Your task to perform on an android device: What is the recent news? Image 0: 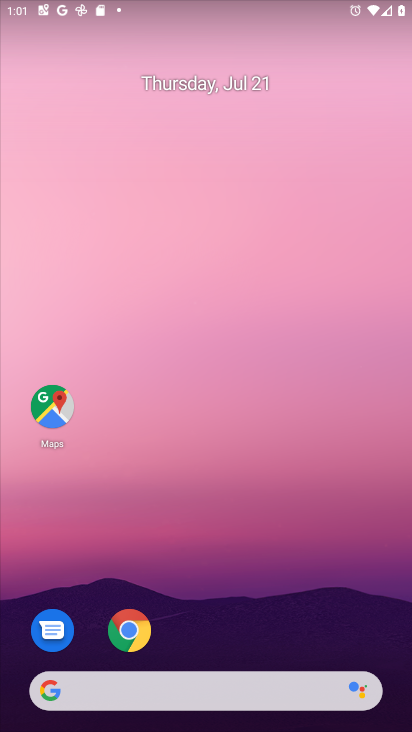
Step 0: drag from (192, 611) to (249, 220)
Your task to perform on an android device: What is the recent news? Image 1: 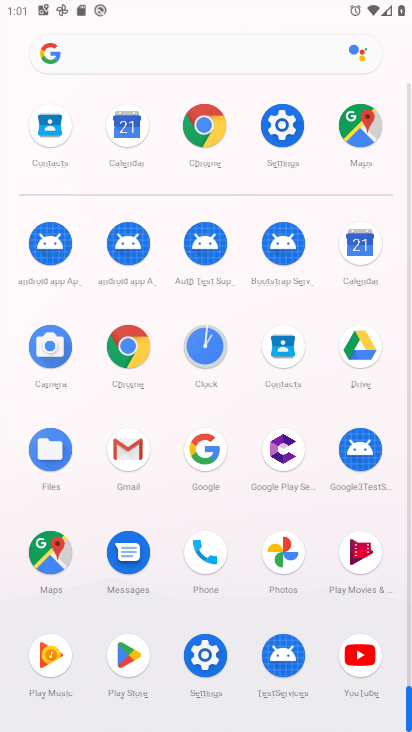
Step 1: click (123, 64)
Your task to perform on an android device: What is the recent news? Image 2: 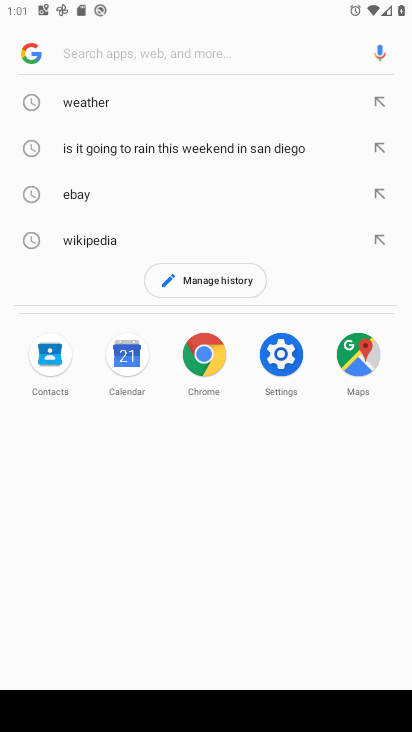
Step 2: type "recent news?"
Your task to perform on an android device: What is the recent news? Image 3: 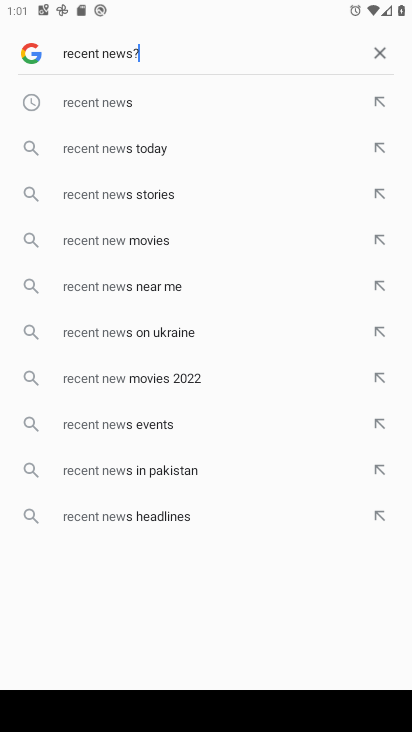
Step 3: type ""
Your task to perform on an android device: What is the recent news? Image 4: 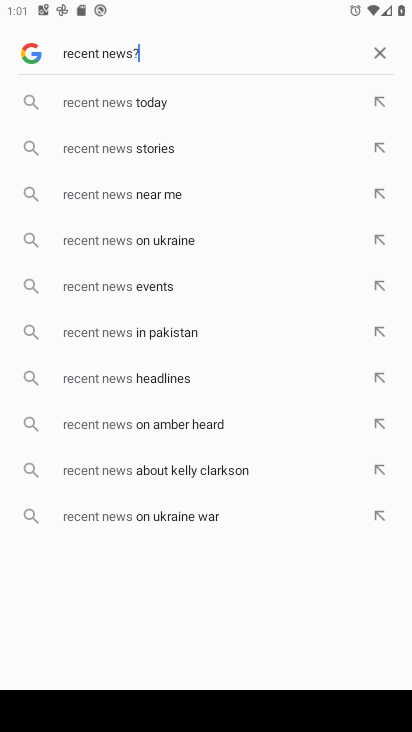
Step 4: click (144, 108)
Your task to perform on an android device: What is the recent news? Image 5: 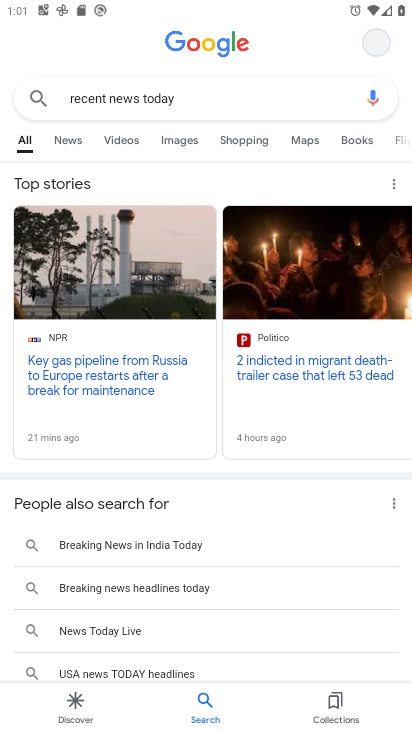
Step 5: drag from (252, 385) to (311, 180)
Your task to perform on an android device: What is the recent news? Image 6: 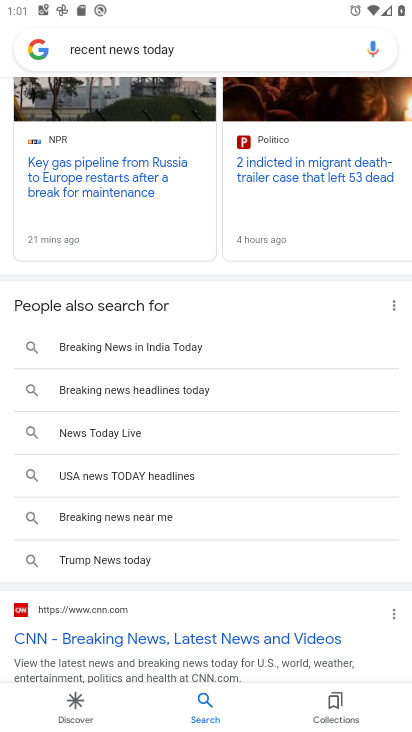
Step 6: click (117, 632)
Your task to perform on an android device: What is the recent news? Image 7: 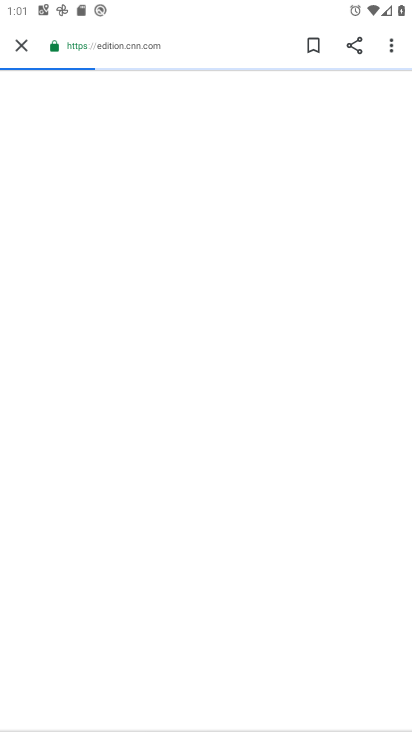
Step 7: task complete